Your task to perform on an android device: Open Chrome and go to settings Image 0: 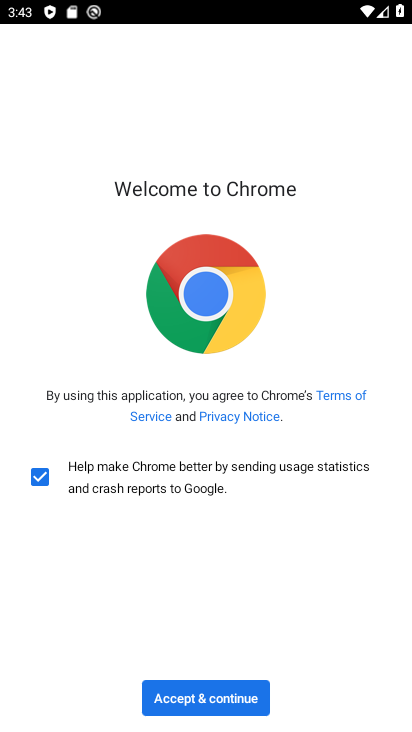
Step 0: press home button
Your task to perform on an android device: Open Chrome and go to settings Image 1: 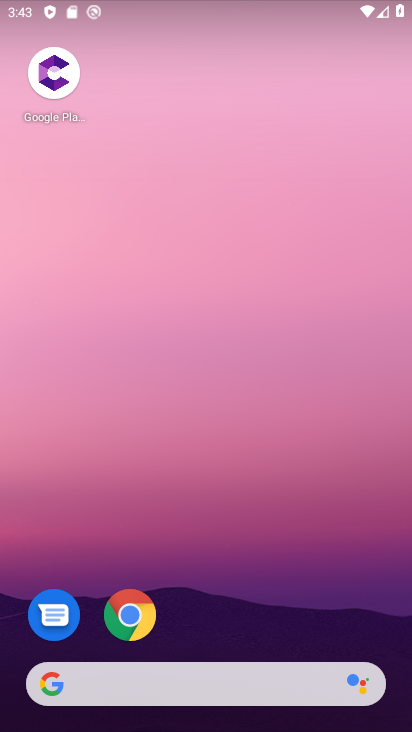
Step 1: drag from (181, 614) to (305, 102)
Your task to perform on an android device: Open Chrome and go to settings Image 2: 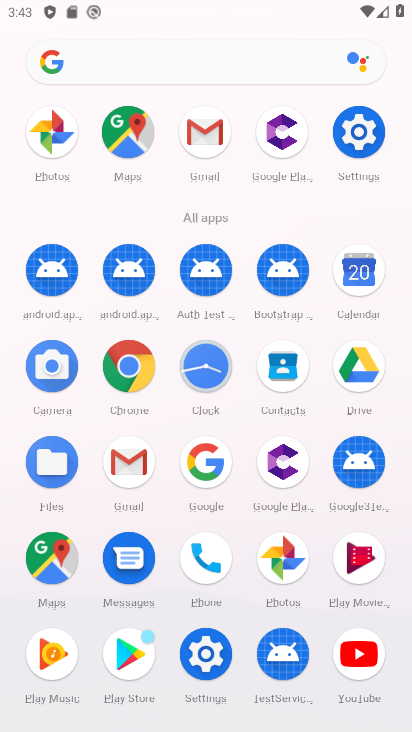
Step 2: click (137, 385)
Your task to perform on an android device: Open Chrome and go to settings Image 3: 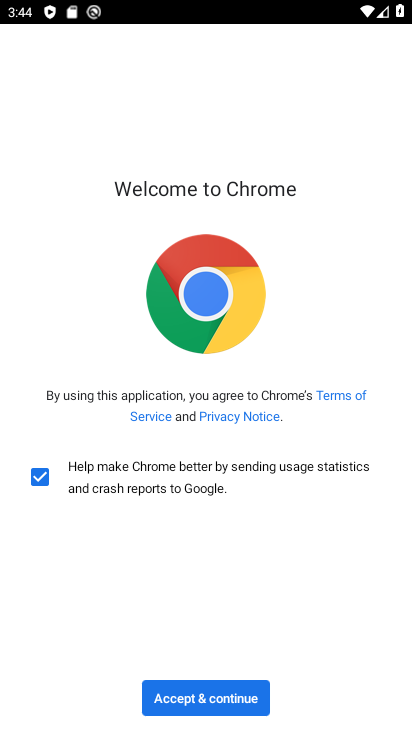
Step 3: click (194, 691)
Your task to perform on an android device: Open Chrome and go to settings Image 4: 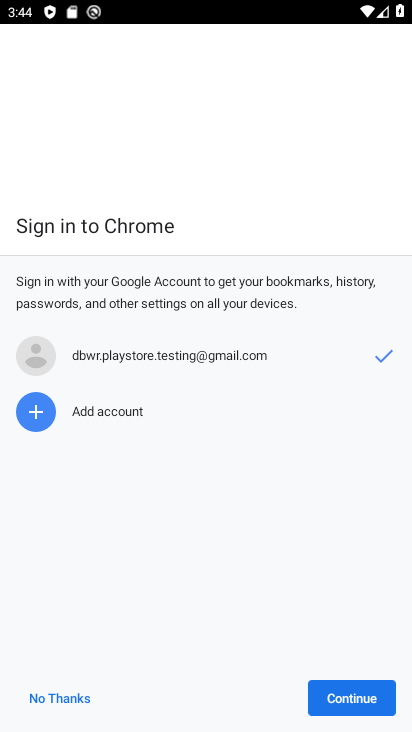
Step 4: click (358, 706)
Your task to perform on an android device: Open Chrome and go to settings Image 5: 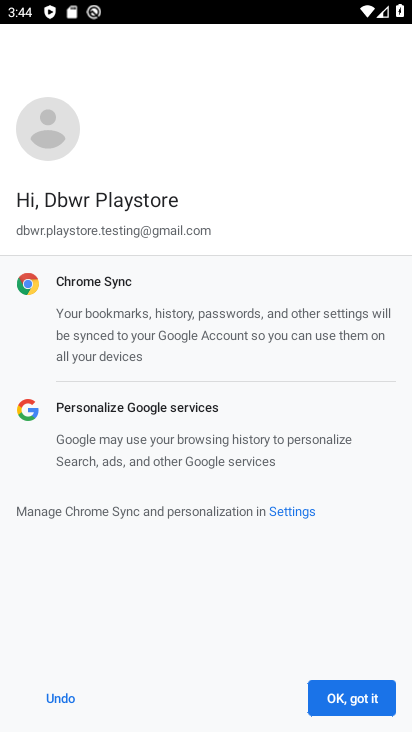
Step 5: click (358, 701)
Your task to perform on an android device: Open Chrome and go to settings Image 6: 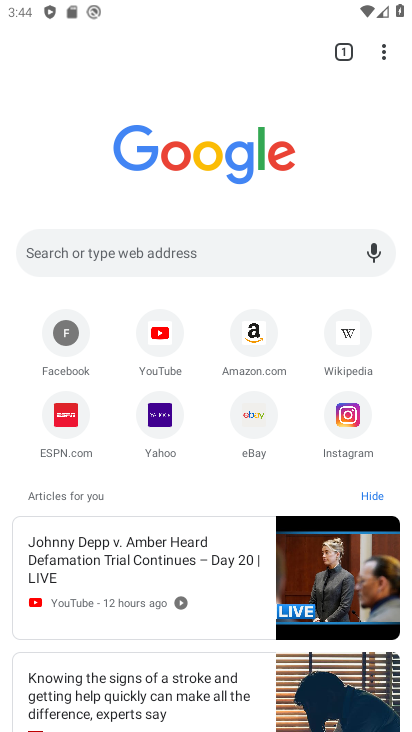
Step 6: click (386, 53)
Your task to perform on an android device: Open Chrome and go to settings Image 7: 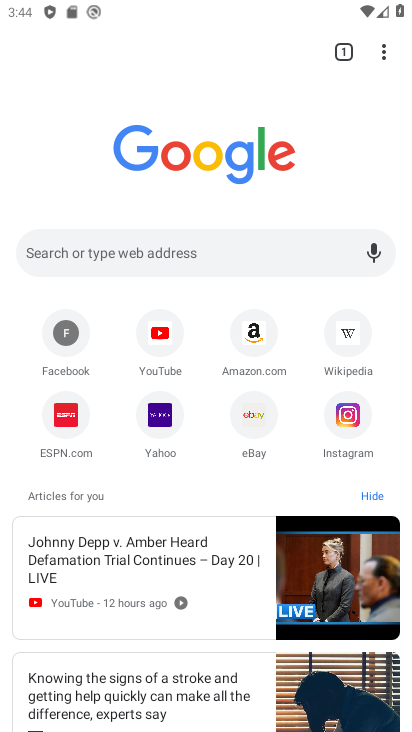
Step 7: click (386, 59)
Your task to perform on an android device: Open Chrome and go to settings Image 8: 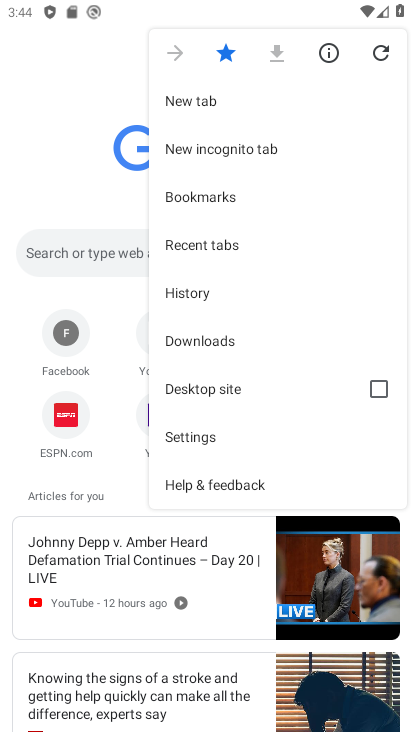
Step 8: click (220, 433)
Your task to perform on an android device: Open Chrome and go to settings Image 9: 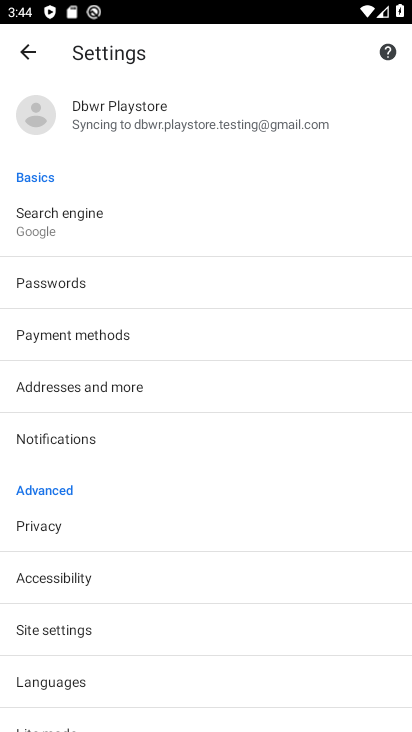
Step 9: task complete